Your task to perform on an android device: turn off priority inbox in the gmail app Image 0: 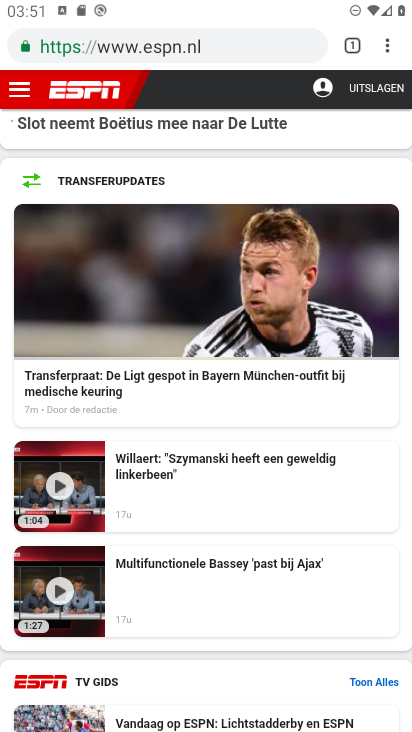
Step 0: press home button
Your task to perform on an android device: turn off priority inbox in the gmail app Image 1: 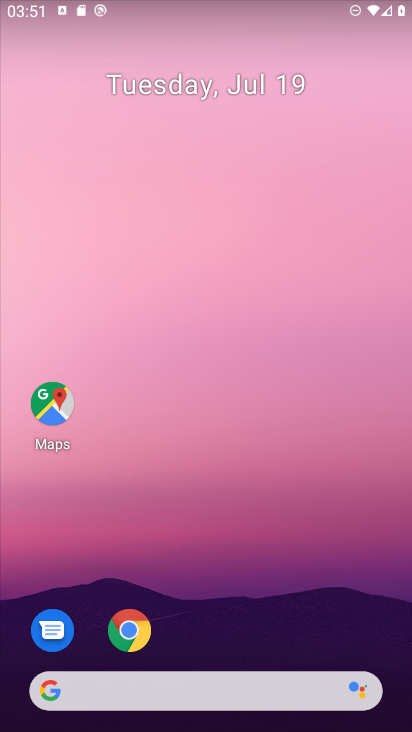
Step 1: drag from (390, 653) to (314, 105)
Your task to perform on an android device: turn off priority inbox in the gmail app Image 2: 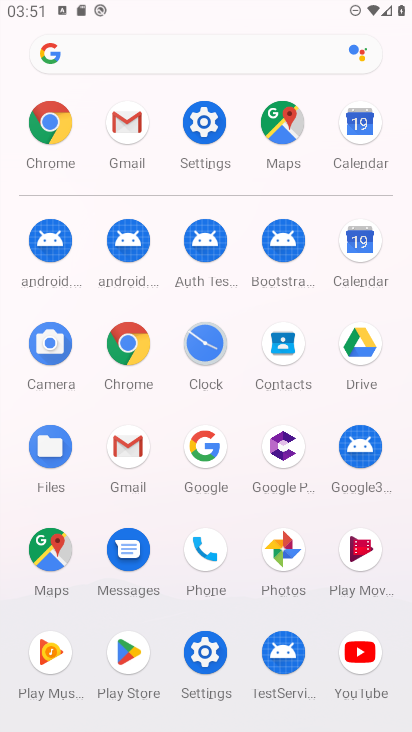
Step 2: click (125, 444)
Your task to perform on an android device: turn off priority inbox in the gmail app Image 3: 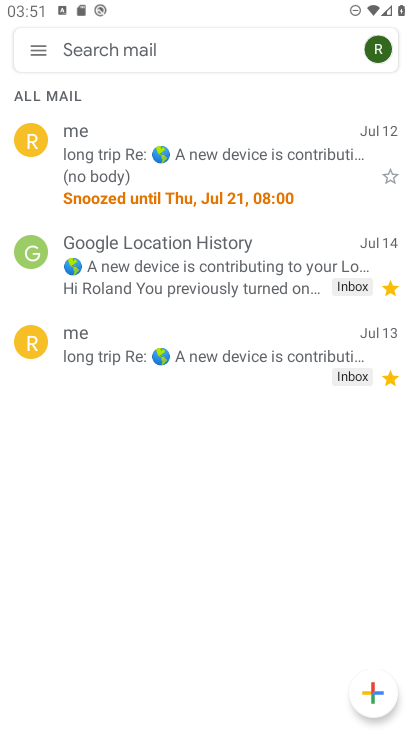
Step 3: click (41, 49)
Your task to perform on an android device: turn off priority inbox in the gmail app Image 4: 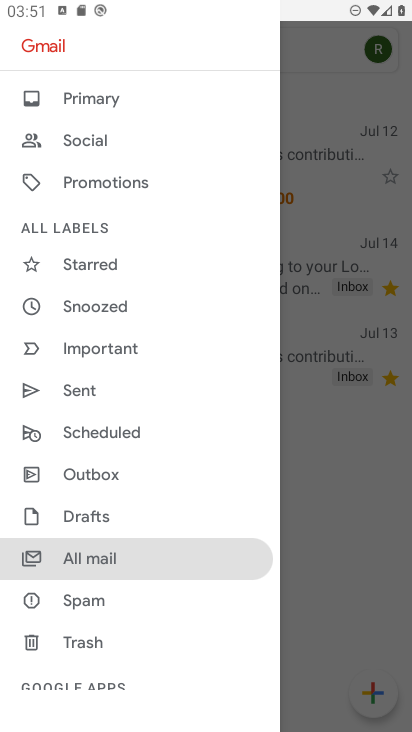
Step 4: drag from (129, 648) to (153, 256)
Your task to perform on an android device: turn off priority inbox in the gmail app Image 5: 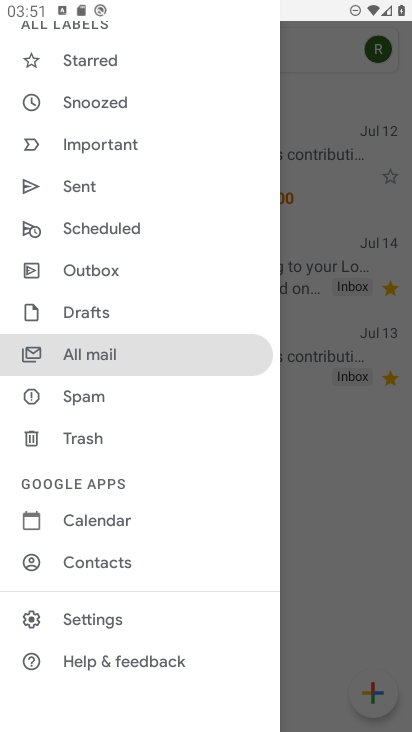
Step 5: click (74, 615)
Your task to perform on an android device: turn off priority inbox in the gmail app Image 6: 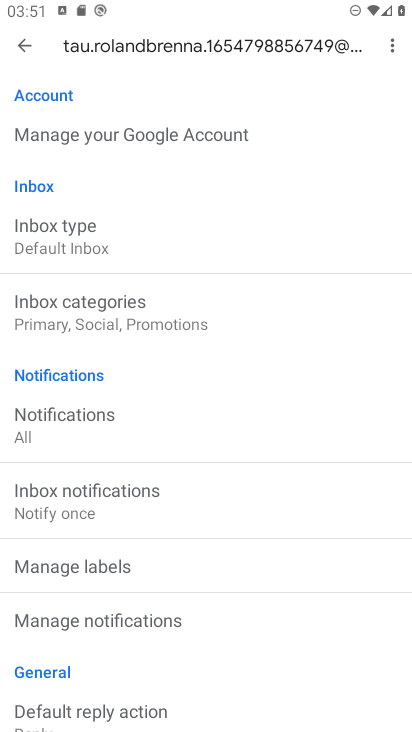
Step 6: click (71, 235)
Your task to perform on an android device: turn off priority inbox in the gmail app Image 7: 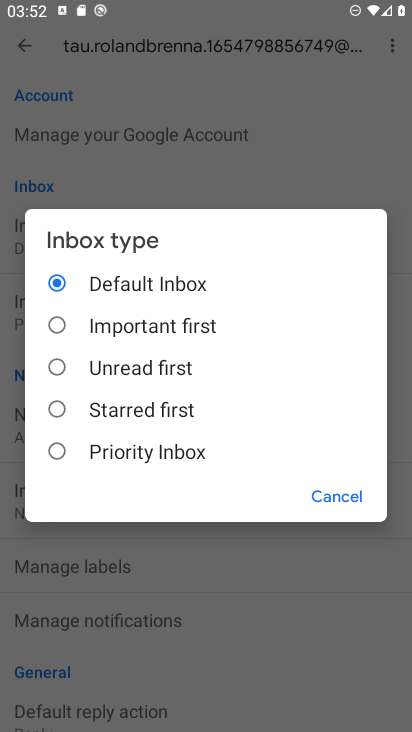
Step 7: task complete